Your task to perform on an android device: Clear all items from cart on costco. Search for asus zenbook on costco, select the first entry, and add it to the cart. Image 0: 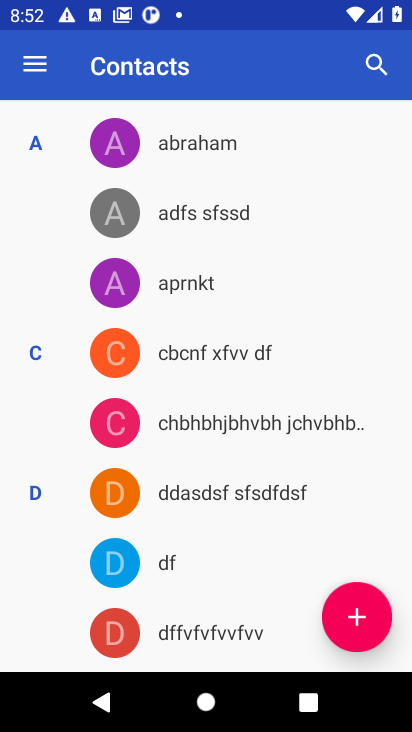
Step 0: press home button
Your task to perform on an android device: Clear all items from cart on costco. Search for asus zenbook on costco, select the first entry, and add it to the cart. Image 1: 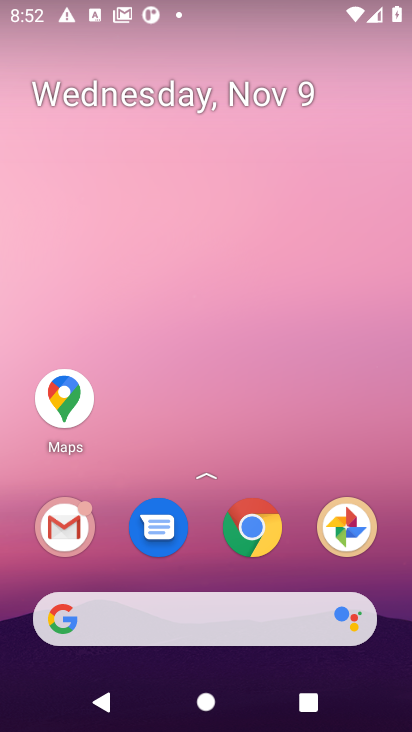
Step 1: click (253, 532)
Your task to perform on an android device: Clear all items from cart on costco. Search for asus zenbook on costco, select the first entry, and add it to the cart. Image 2: 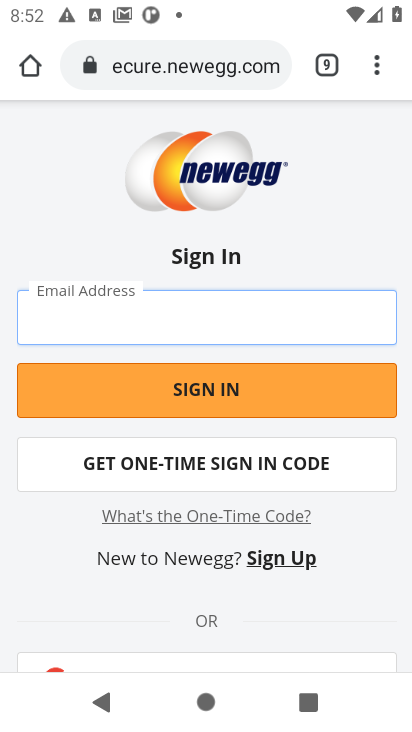
Step 2: click (180, 63)
Your task to perform on an android device: Clear all items from cart on costco. Search for asus zenbook on costco, select the first entry, and add it to the cart. Image 3: 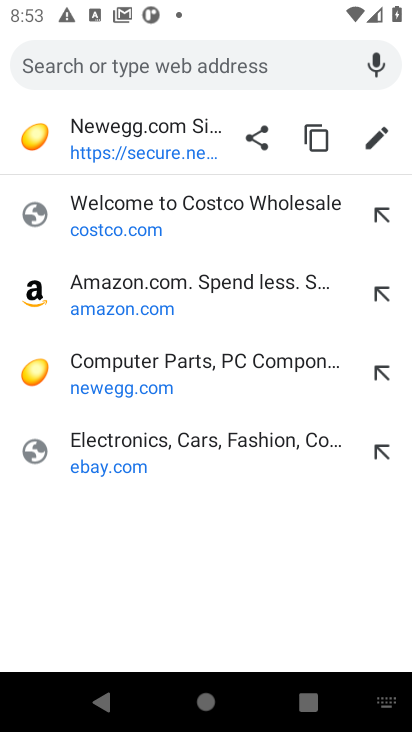
Step 3: click (91, 224)
Your task to perform on an android device: Clear all items from cart on costco. Search for asus zenbook on costco, select the first entry, and add it to the cart. Image 4: 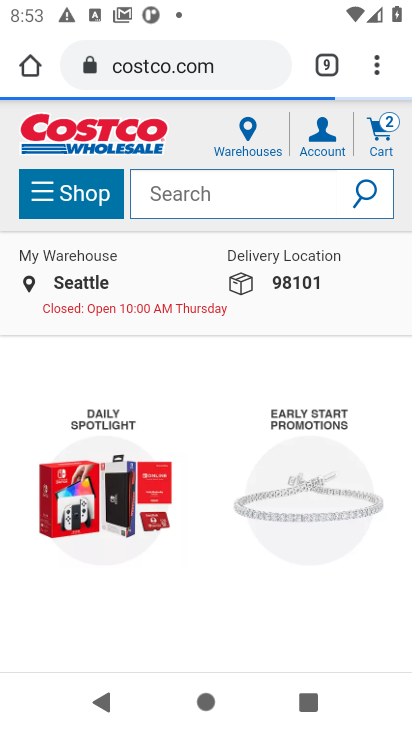
Step 4: click (386, 130)
Your task to perform on an android device: Clear all items from cart on costco. Search for asus zenbook on costco, select the first entry, and add it to the cart. Image 5: 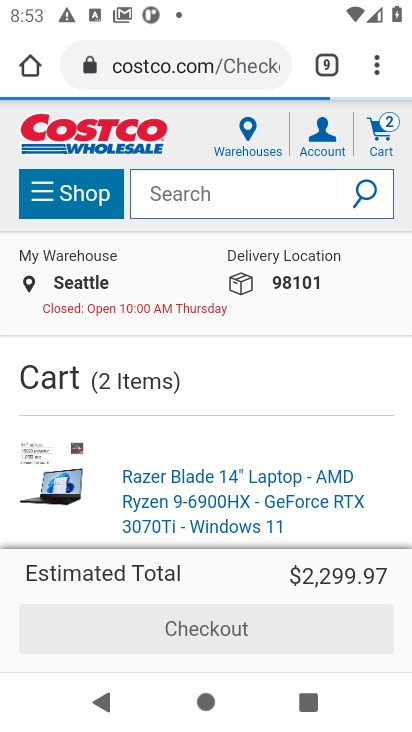
Step 5: drag from (214, 493) to (233, 299)
Your task to perform on an android device: Clear all items from cart on costco. Search for asus zenbook on costco, select the first entry, and add it to the cart. Image 6: 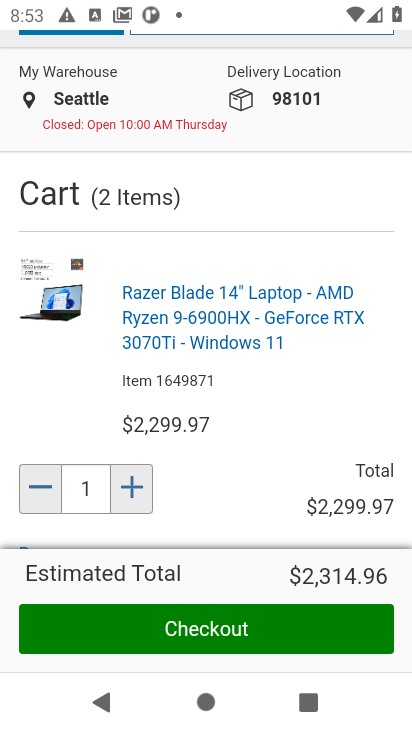
Step 6: drag from (269, 484) to (278, 184)
Your task to perform on an android device: Clear all items from cart on costco. Search for asus zenbook on costco, select the first entry, and add it to the cart. Image 7: 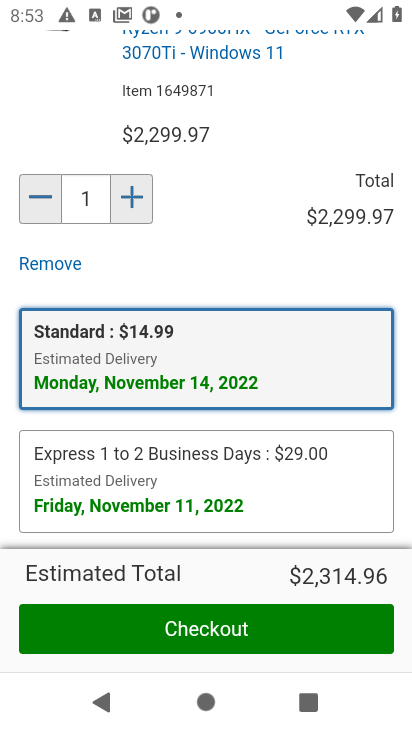
Step 7: drag from (241, 471) to (252, 228)
Your task to perform on an android device: Clear all items from cart on costco. Search for asus zenbook on costco, select the first entry, and add it to the cart. Image 8: 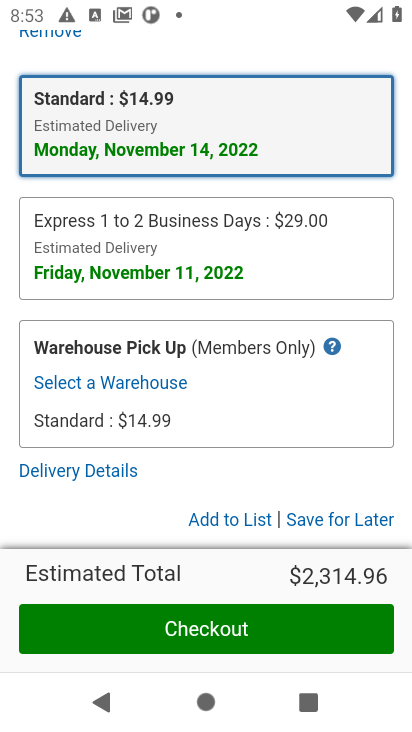
Step 8: click (343, 521)
Your task to perform on an android device: Clear all items from cart on costco. Search for asus zenbook on costco, select the first entry, and add it to the cart. Image 9: 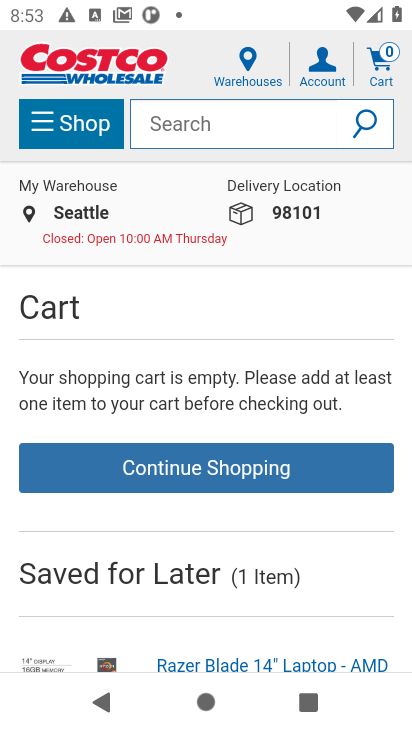
Step 9: click (189, 124)
Your task to perform on an android device: Clear all items from cart on costco. Search for asus zenbook on costco, select the first entry, and add it to the cart. Image 10: 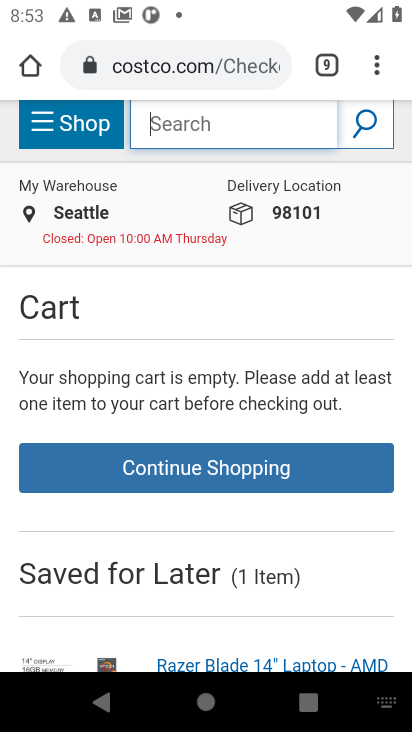
Step 10: type "asus zenbook"
Your task to perform on an android device: Clear all items from cart on costco. Search for asus zenbook on costco, select the first entry, and add it to the cart. Image 11: 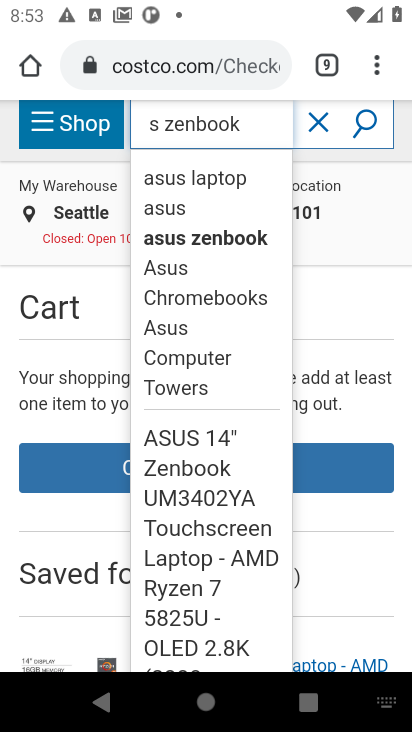
Step 11: click (239, 244)
Your task to perform on an android device: Clear all items from cart on costco. Search for asus zenbook on costco, select the first entry, and add it to the cart. Image 12: 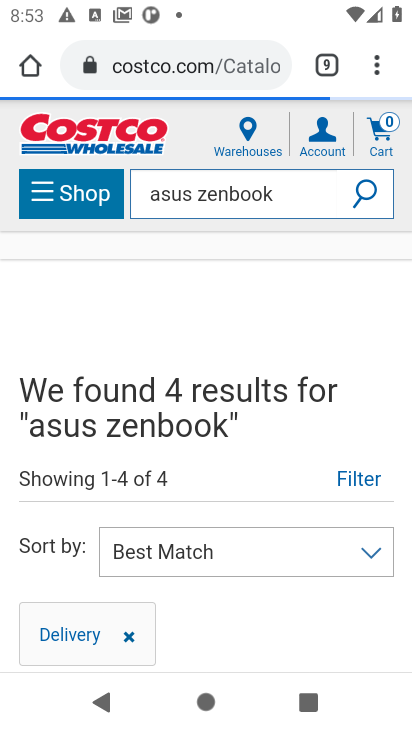
Step 12: drag from (229, 503) to (218, 214)
Your task to perform on an android device: Clear all items from cart on costco. Search for asus zenbook on costco, select the first entry, and add it to the cart. Image 13: 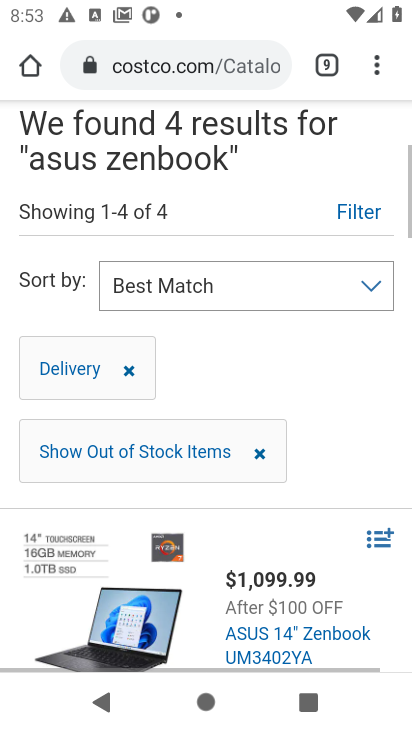
Step 13: drag from (223, 497) to (211, 256)
Your task to perform on an android device: Clear all items from cart on costco. Search for asus zenbook on costco, select the first entry, and add it to the cart. Image 14: 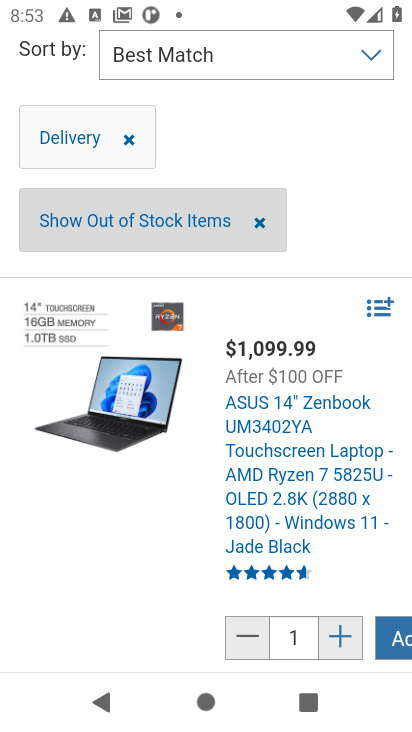
Step 14: click (401, 638)
Your task to perform on an android device: Clear all items from cart on costco. Search for asus zenbook on costco, select the first entry, and add it to the cart. Image 15: 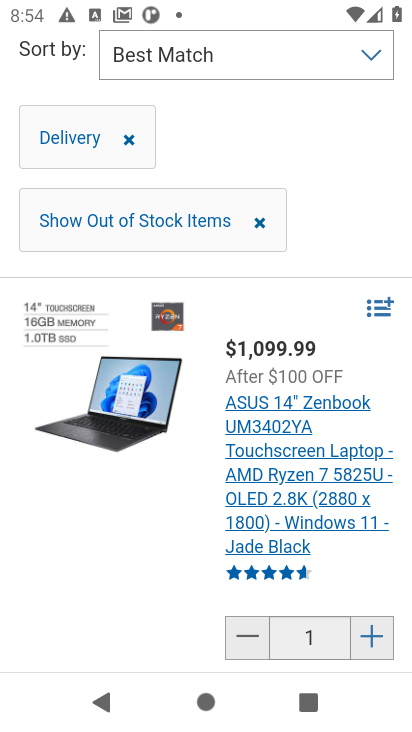
Step 15: task complete